Your task to perform on an android device: Open the calendar app, open the side menu, and click the "Day" option Image 0: 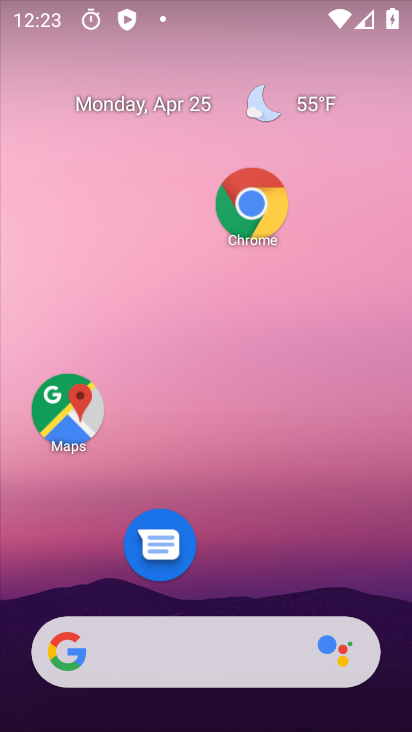
Step 0: drag from (294, 685) to (283, 189)
Your task to perform on an android device: Open the calendar app, open the side menu, and click the "Day" option Image 1: 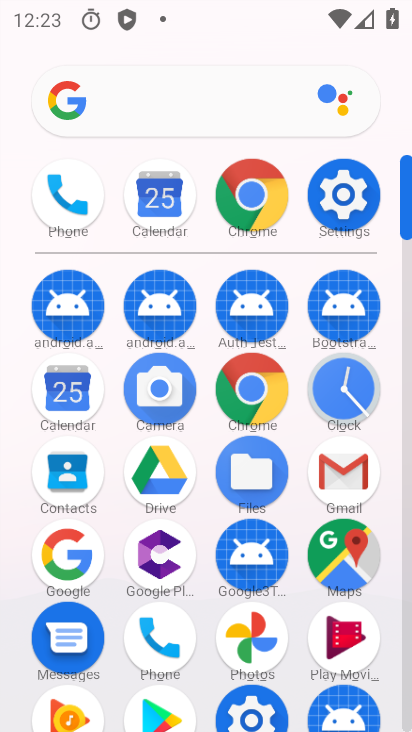
Step 1: click (70, 396)
Your task to perform on an android device: Open the calendar app, open the side menu, and click the "Day" option Image 2: 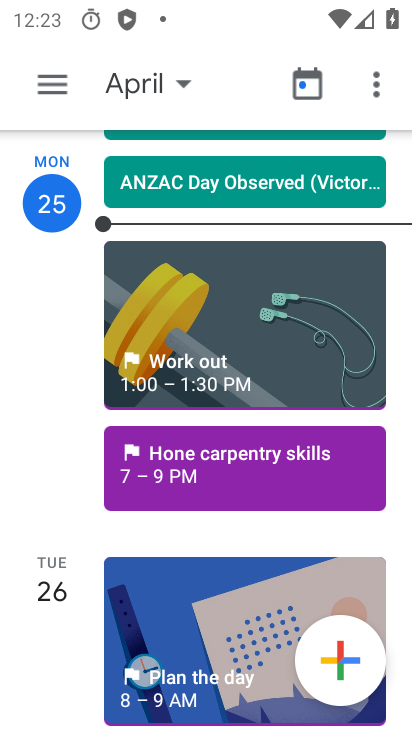
Step 2: click (46, 96)
Your task to perform on an android device: Open the calendar app, open the side menu, and click the "Day" option Image 3: 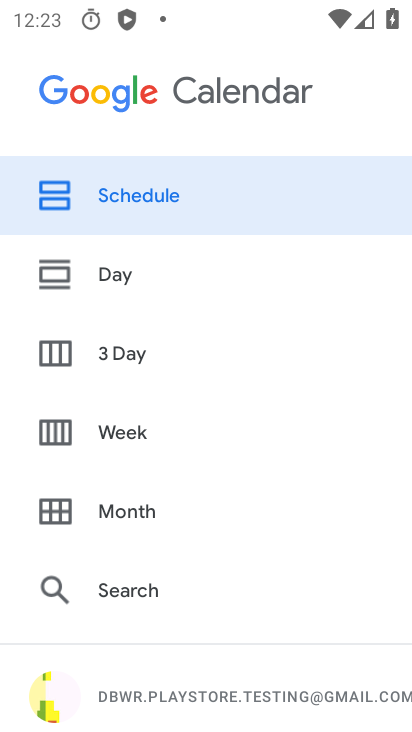
Step 3: click (107, 265)
Your task to perform on an android device: Open the calendar app, open the side menu, and click the "Day" option Image 4: 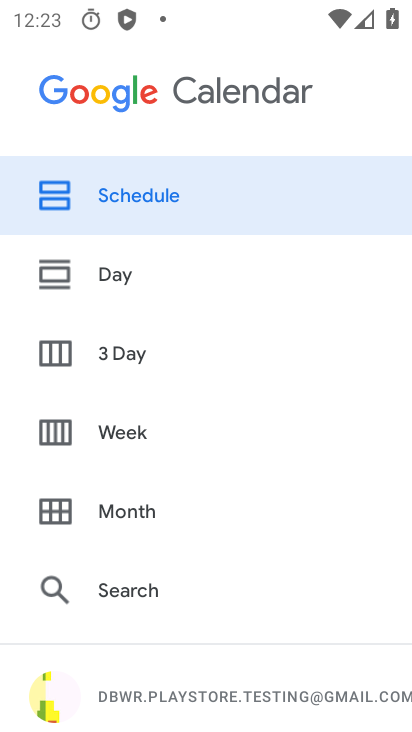
Step 4: click (120, 273)
Your task to perform on an android device: Open the calendar app, open the side menu, and click the "Day" option Image 5: 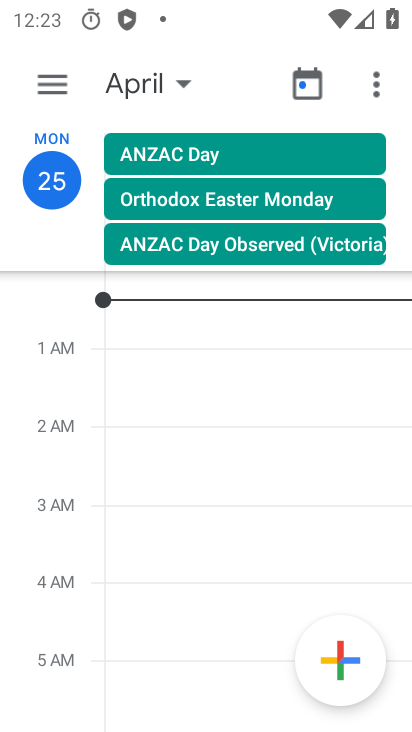
Step 5: task complete